Your task to perform on an android device: When is my next meeting? Image 0: 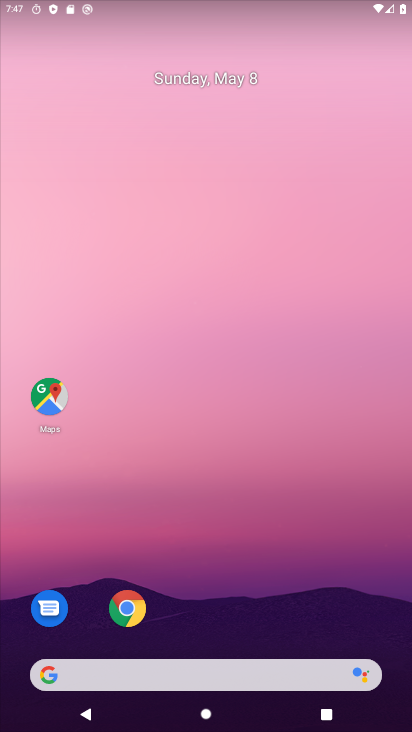
Step 0: drag from (298, 606) to (357, 138)
Your task to perform on an android device: When is my next meeting? Image 1: 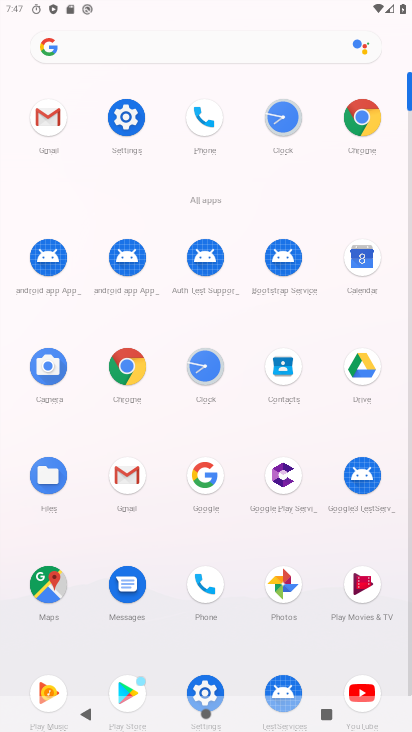
Step 1: click (360, 272)
Your task to perform on an android device: When is my next meeting? Image 2: 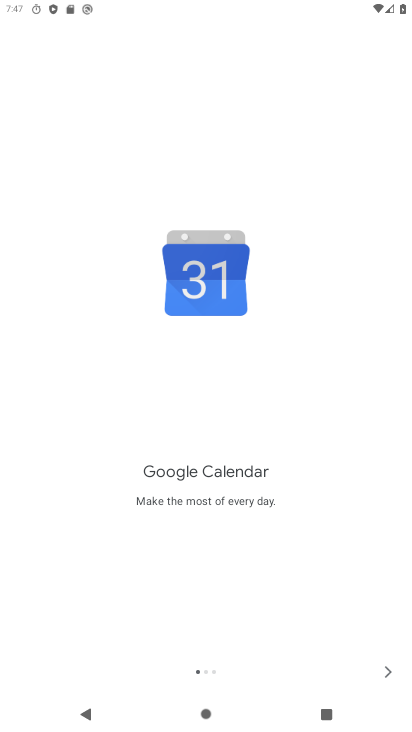
Step 2: click (372, 679)
Your task to perform on an android device: When is my next meeting? Image 3: 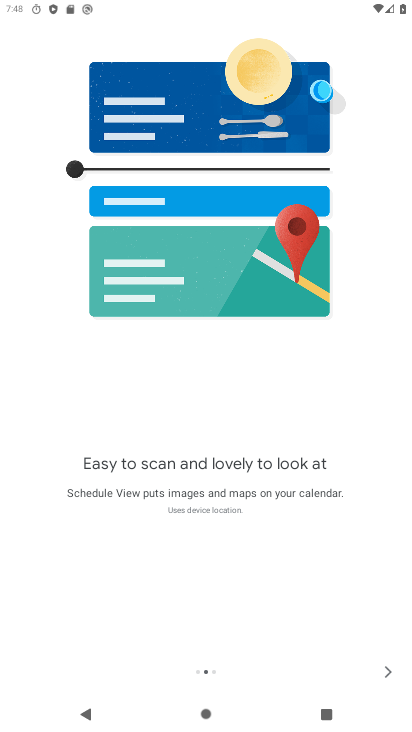
Step 3: click (380, 686)
Your task to perform on an android device: When is my next meeting? Image 4: 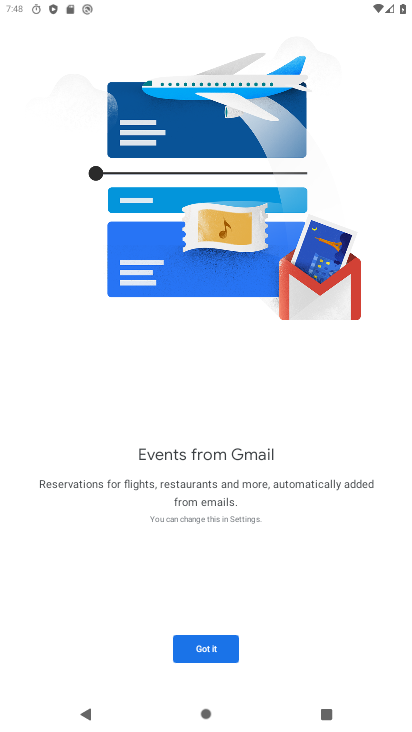
Step 4: click (198, 652)
Your task to perform on an android device: When is my next meeting? Image 5: 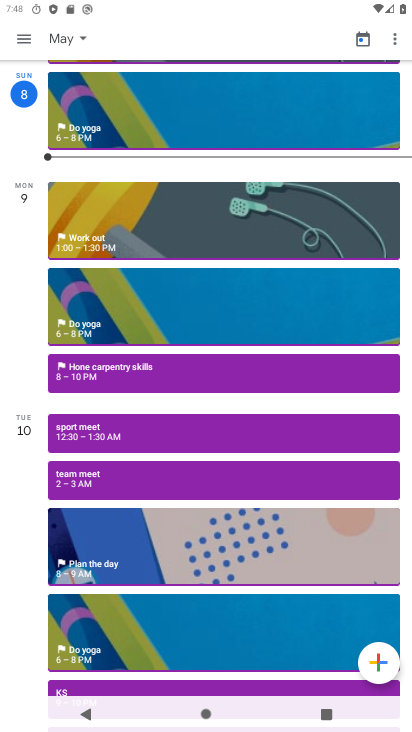
Step 5: task complete